Your task to perform on an android device: What's on my calendar today? Image 0: 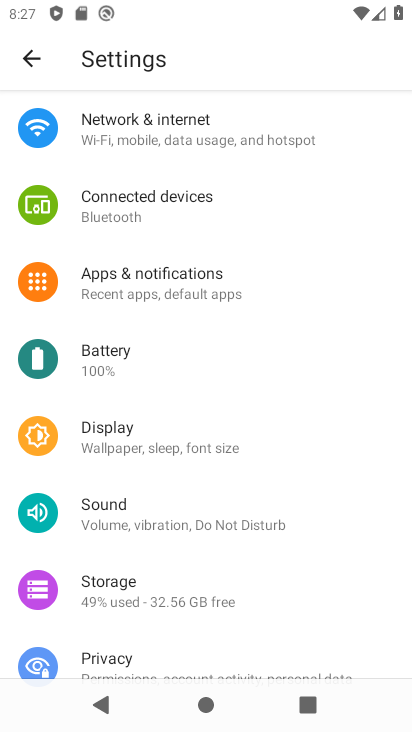
Step 0: press home button
Your task to perform on an android device: What's on my calendar today? Image 1: 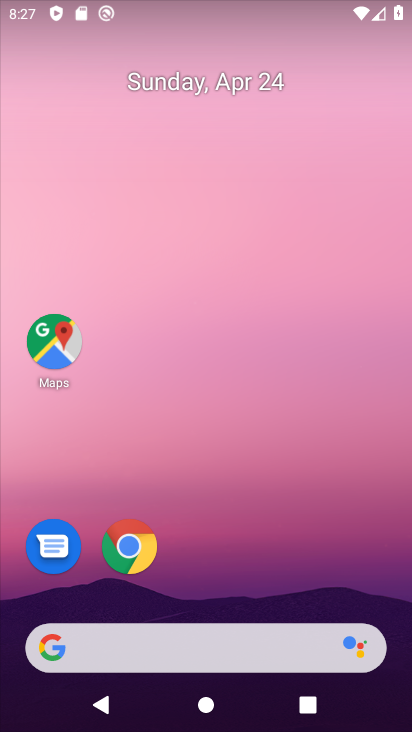
Step 1: drag from (203, 580) to (278, 176)
Your task to perform on an android device: What's on my calendar today? Image 2: 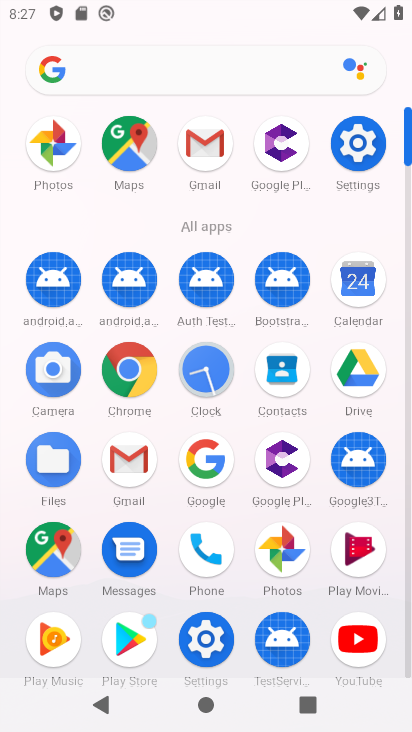
Step 2: click (349, 300)
Your task to perform on an android device: What's on my calendar today? Image 3: 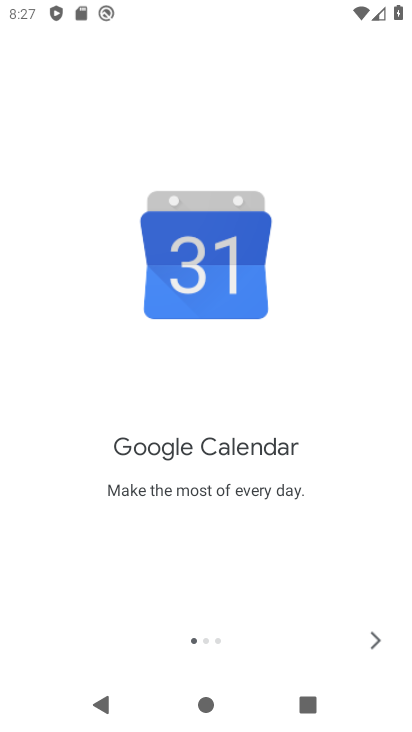
Step 3: click (371, 649)
Your task to perform on an android device: What's on my calendar today? Image 4: 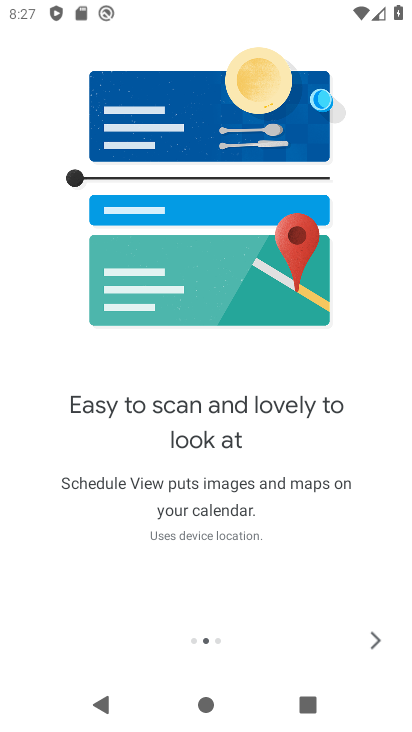
Step 4: click (371, 648)
Your task to perform on an android device: What's on my calendar today? Image 5: 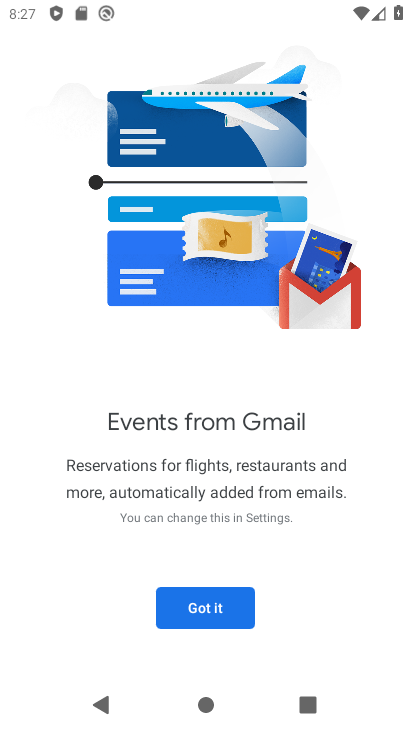
Step 5: click (238, 616)
Your task to perform on an android device: What's on my calendar today? Image 6: 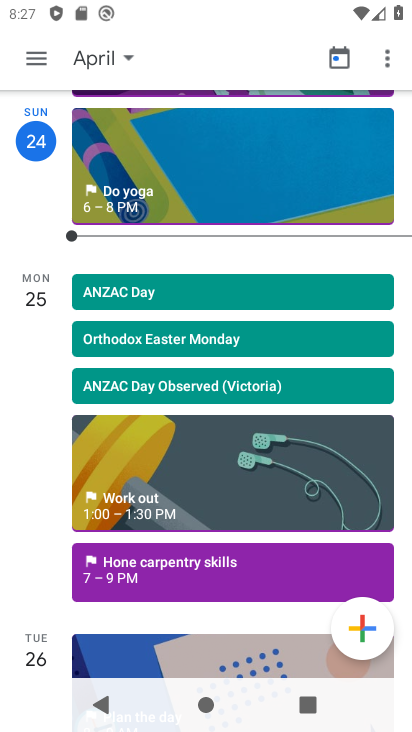
Step 6: click (44, 289)
Your task to perform on an android device: What's on my calendar today? Image 7: 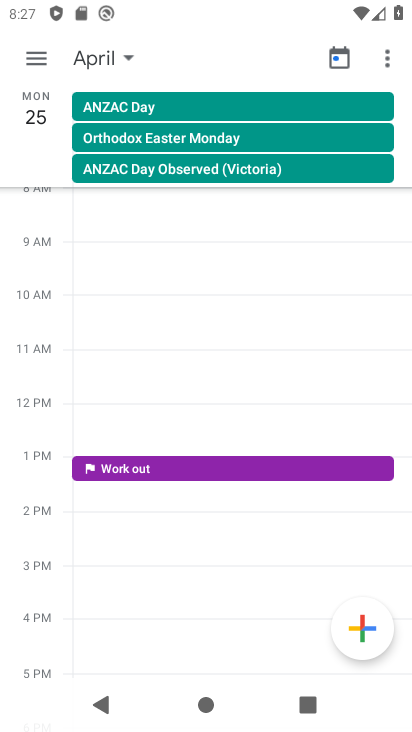
Step 7: task complete